Your task to perform on an android device: Is it going to rain tomorrow? Image 0: 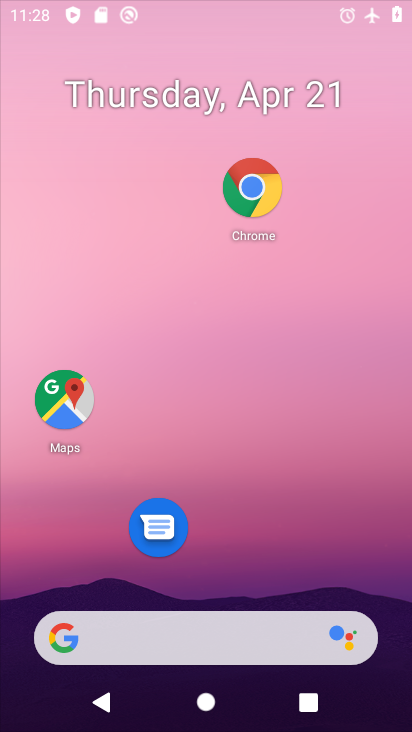
Step 0: drag from (274, 617) to (326, 314)
Your task to perform on an android device: Is it going to rain tomorrow? Image 1: 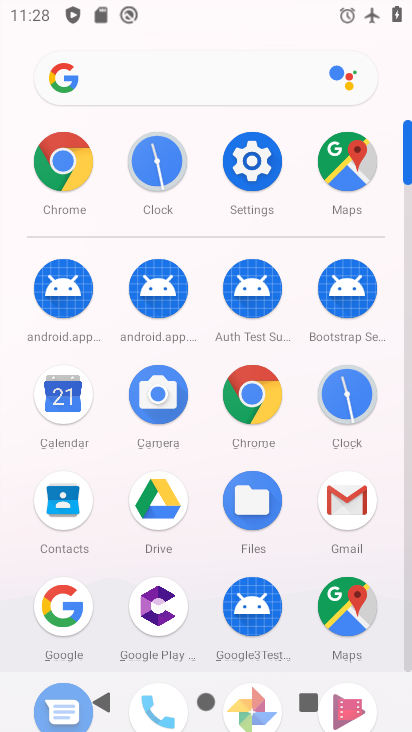
Step 1: click (69, 633)
Your task to perform on an android device: Is it going to rain tomorrow? Image 2: 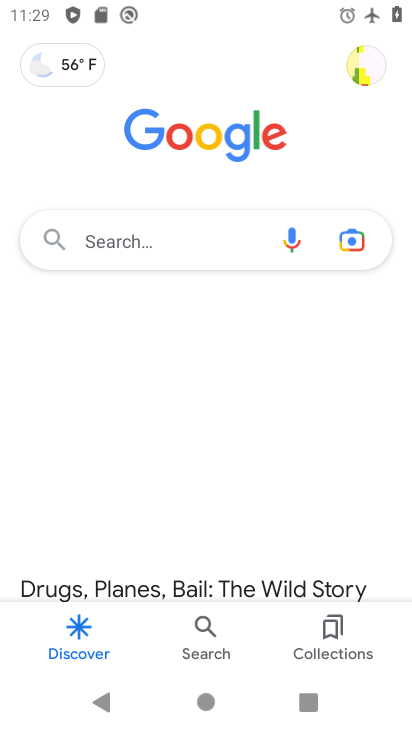
Step 2: click (205, 236)
Your task to perform on an android device: Is it going to rain tomorrow? Image 3: 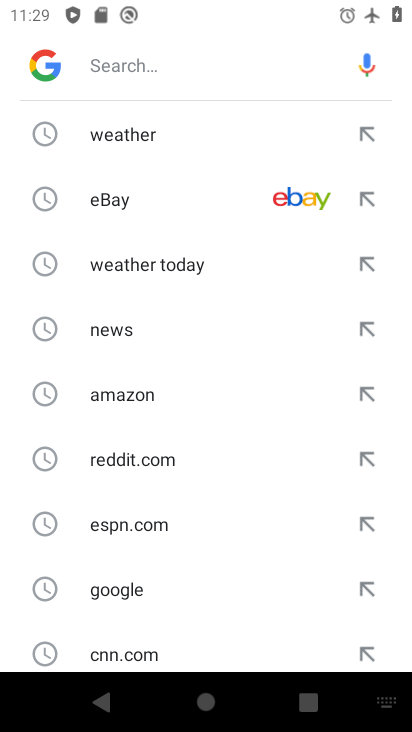
Step 3: click (236, 141)
Your task to perform on an android device: Is it going to rain tomorrow? Image 4: 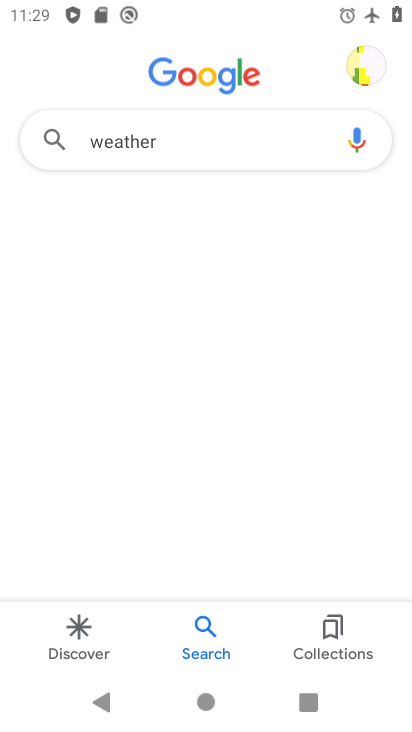
Step 4: task complete